Your task to perform on an android device: open app "VLC for Android" (install if not already installed) Image 0: 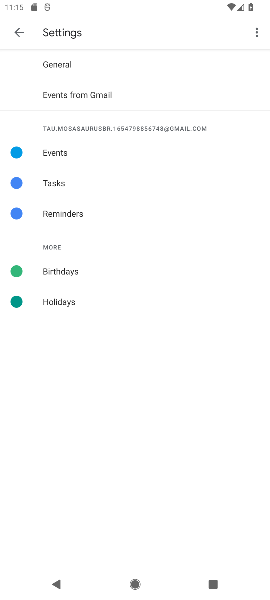
Step 0: press home button
Your task to perform on an android device: open app "VLC for Android" (install if not already installed) Image 1: 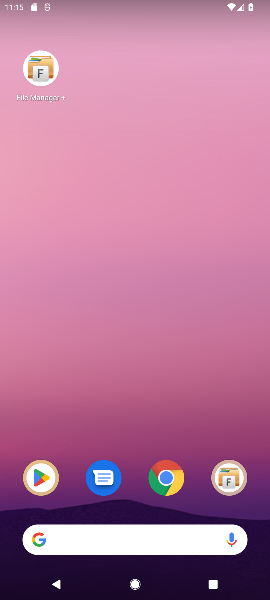
Step 1: click (36, 469)
Your task to perform on an android device: open app "VLC for Android" (install if not already installed) Image 2: 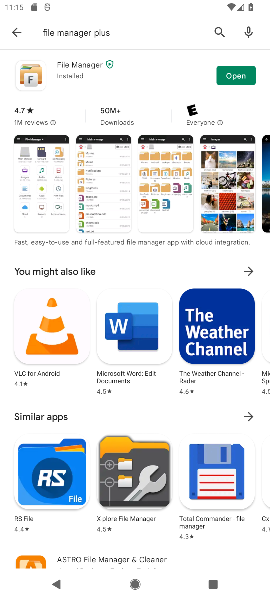
Step 2: click (14, 29)
Your task to perform on an android device: open app "VLC for Android" (install if not already installed) Image 3: 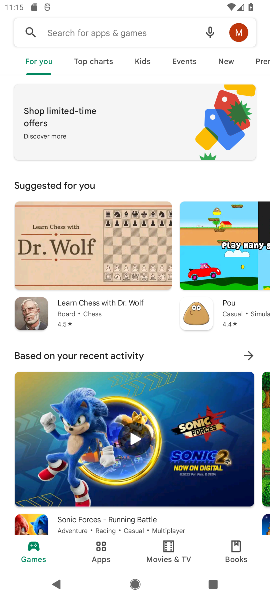
Step 3: click (89, 27)
Your task to perform on an android device: open app "VLC for Android" (install if not already installed) Image 4: 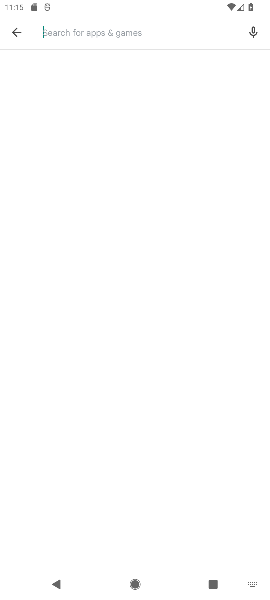
Step 4: click (89, 27)
Your task to perform on an android device: open app "VLC for Android" (install if not already installed) Image 5: 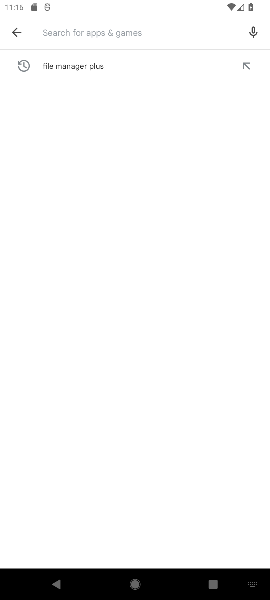
Step 5: type "VLC for Android"
Your task to perform on an android device: open app "VLC for Android" (install if not already installed) Image 6: 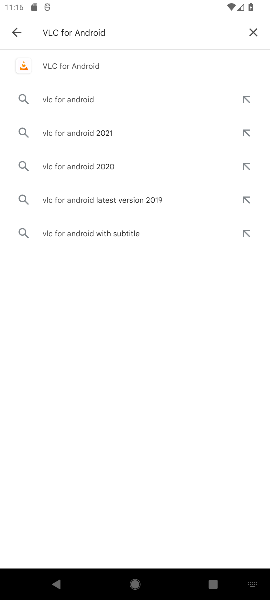
Step 6: click (78, 64)
Your task to perform on an android device: open app "VLC for Android" (install if not already installed) Image 7: 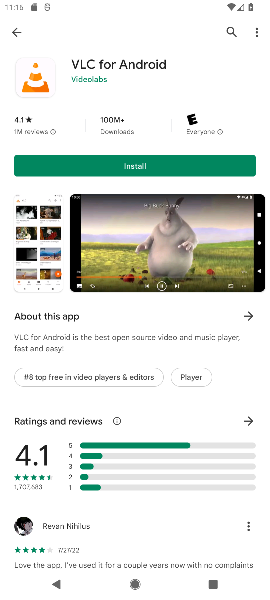
Step 7: click (161, 160)
Your task to perform on an android device: open app "VLC for Android" (install if not already installed) Image 8: 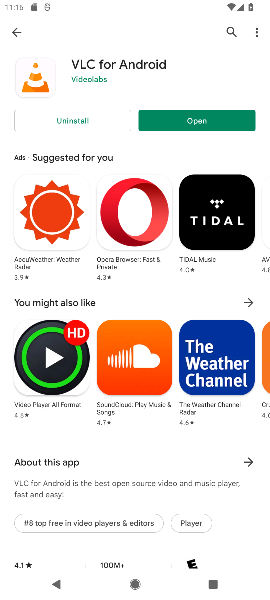
Step 8: click (199, 116)
Your task to perform on an android device: open app "VLC for Android" (install if not already installed) Image 9: 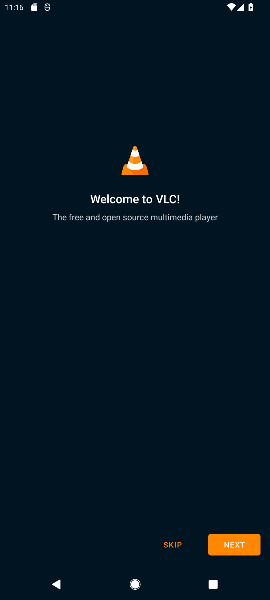
Step 9: task complete